Your task to perform on an android device: Search for Italian restaurants on Maps Image 0: 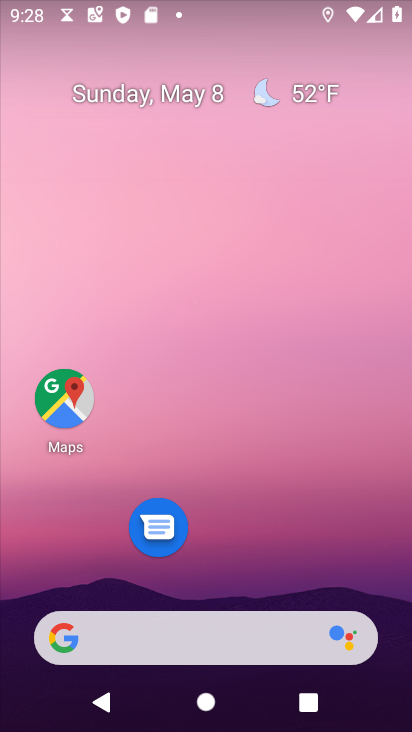
Step 0: click (64, 400)
Your task to perform on an android device: Search for Italian restaurants on Maps Image 1: 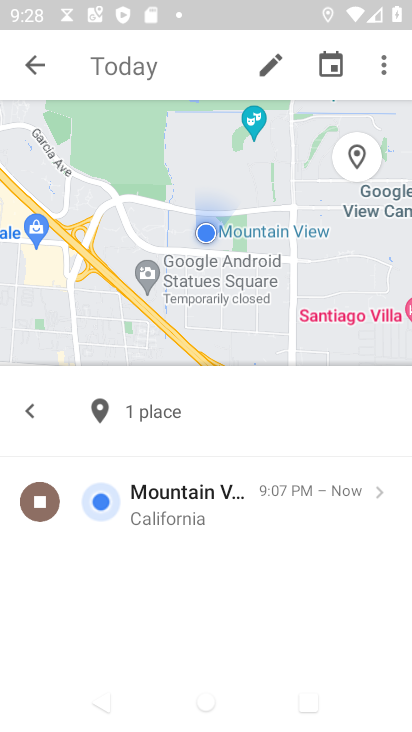
Step 1: press back button
Your task to perform on an android device: Search for Italian restaurants on Maps Image 2: 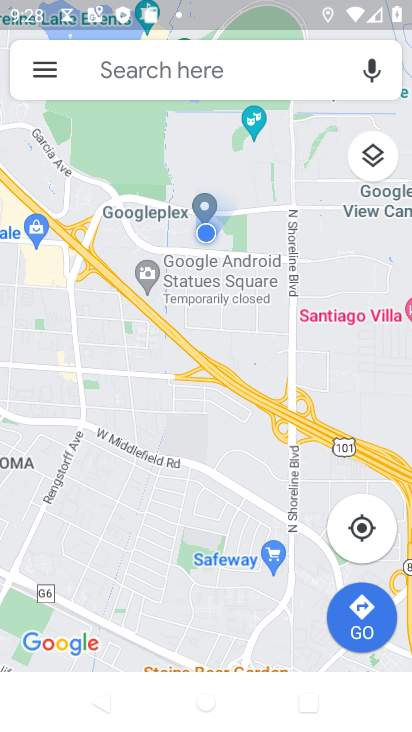
Step 2: click (196, 78)
Your task to perform on an android device: Search for Italian restaurants on Maps Image 3: 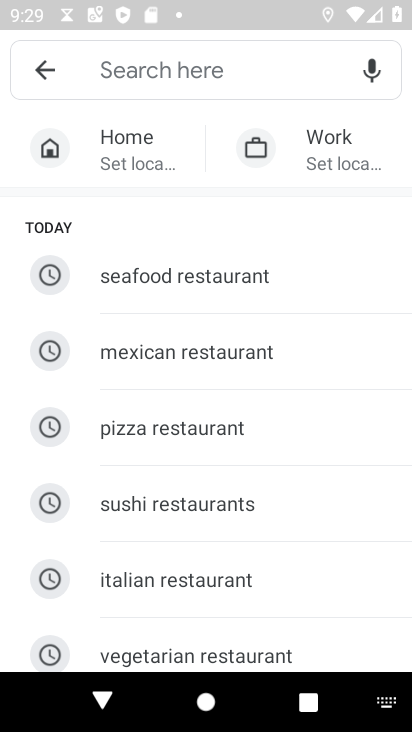
Step 3: type "Italian restaurants"
Your task to perform on an android device: Search for Italian restaurants on Maps Image 4: 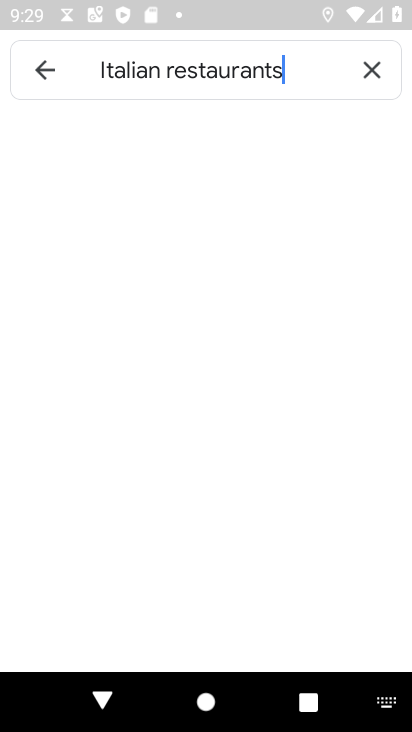
Step 4: type ""
Your task to perform on an android device: Search for Italian restaurants on Maps Image 5: 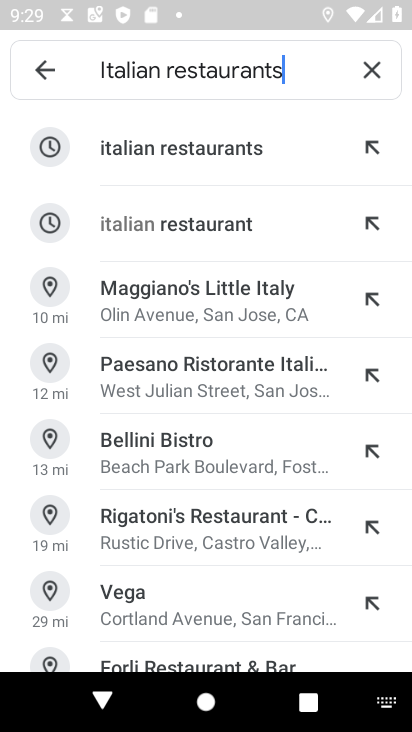
Step 5: click (142, 147)
Your task to perform on an android device: Search for Italian restaurants on Maps Image 6: 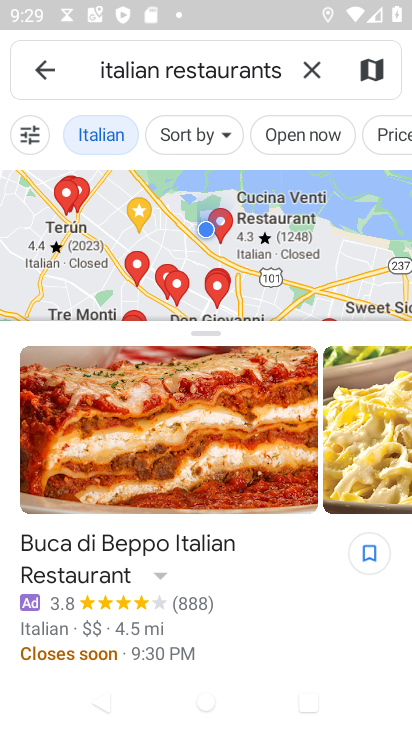
Step 6: task complete